Your task to perform on an android device: Search for Italian restaurants on Maps Image 0: 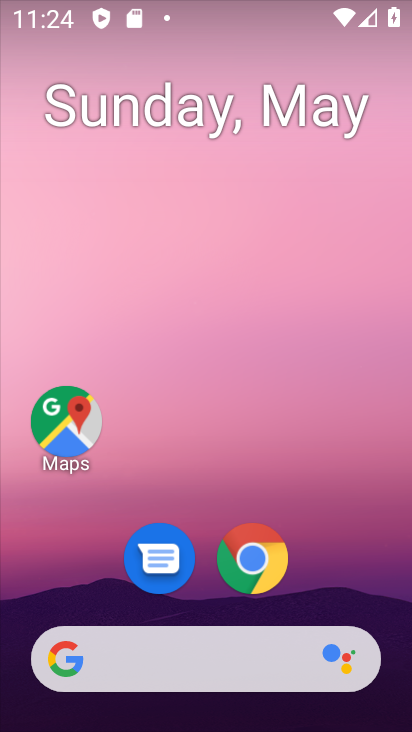
Step 0: drag from (370, 574) to (359, 161)
Your task to perform on an android device: Search for Italian restaurants on Maps Image 1: 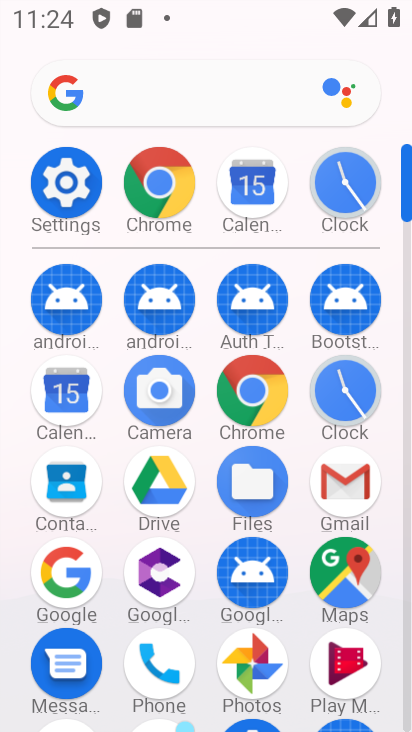
Step 1: click (345, 584)
Your task to perform on an android device: Search for Italian restaurants on Maps Image 2: 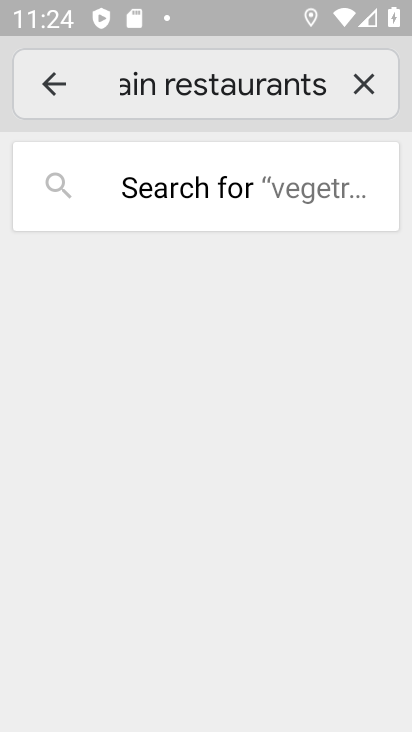
Step 2: click (356, 71)
Your task to perform on an android device: Search for Italian restaurants on Maps Image 3: 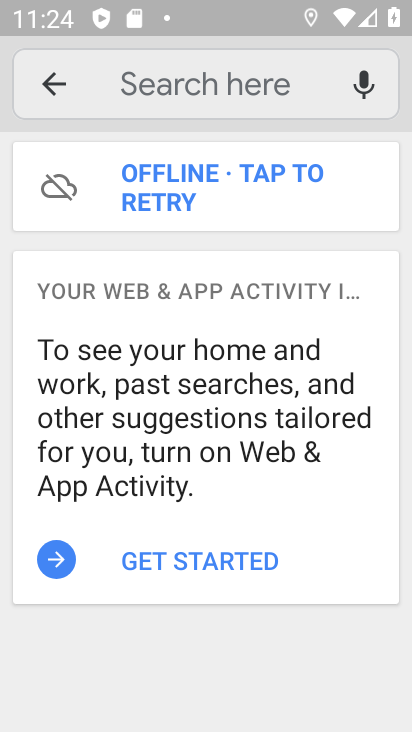
Step 3: click (212, 85)
Your task to perform on an android device: Search for Italian restaurants on Maps Image 4: 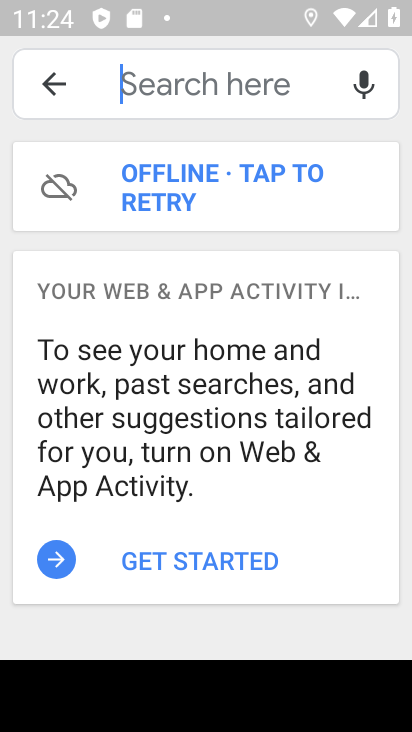
Step 4: type "italian restaurants"
Your task to perform on an android device: Search for Italian restaurants on Maps Image 5: 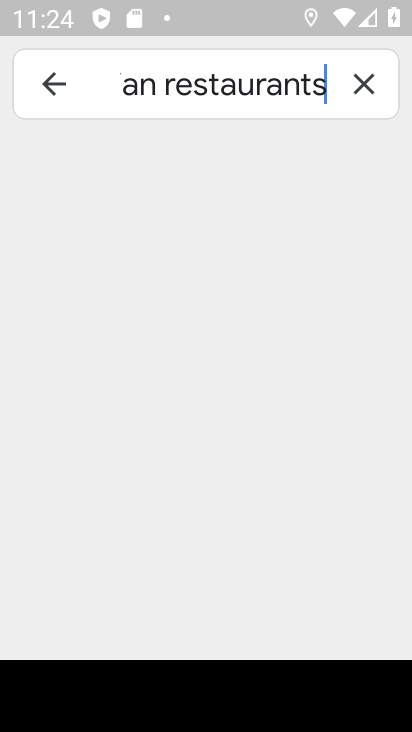
Step 5: task complete